Your task to perform on an android device: Open internet settings Image 0: 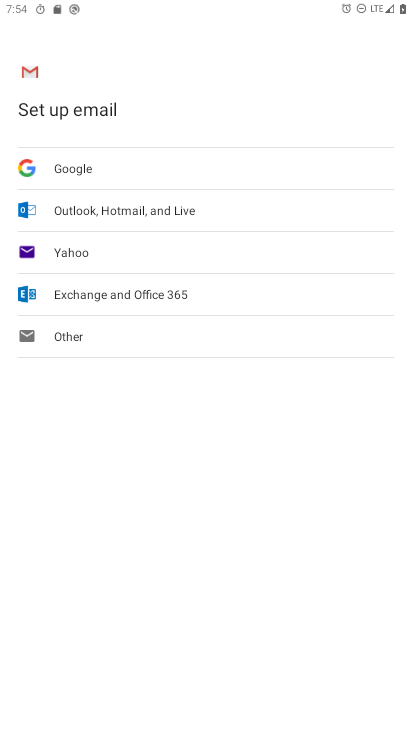
Step 0: press home button
Your task to perform on an android device: Open internet settings Image 1: 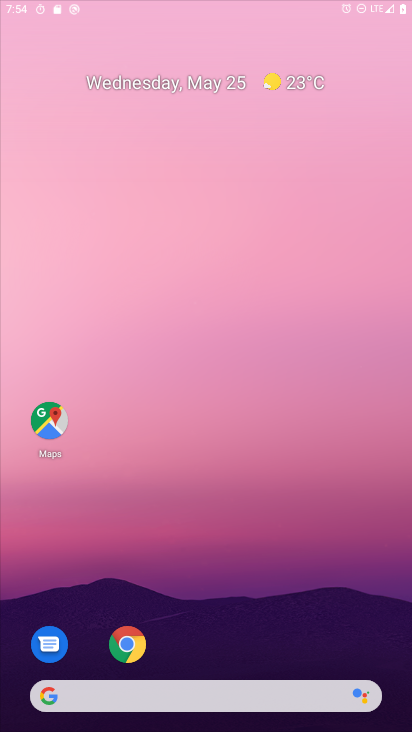
Step 1: drag from (380, 645) to (243, 42)
Your task to perform on an android device: Open internet settings Image 2: 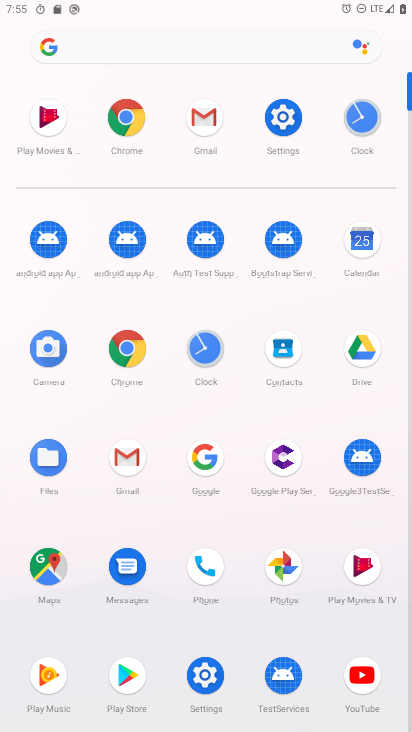
Step 2: click (297, 105)
Your task to perform on an android device: Open internet settings Image 3: 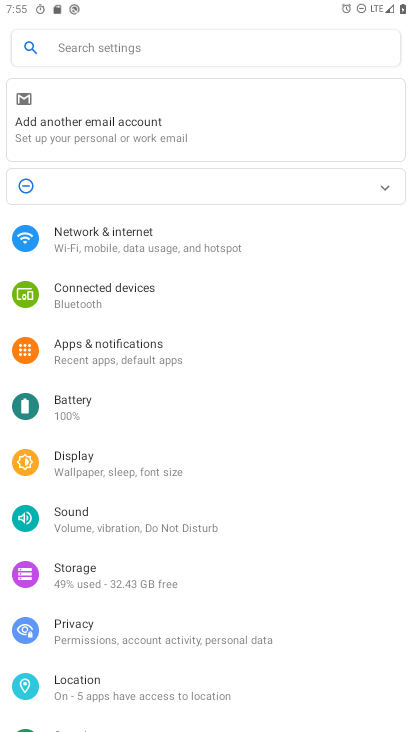
Step 3: click (129, 264)
Your task to perform on an android device: Open internet settings Image 4: 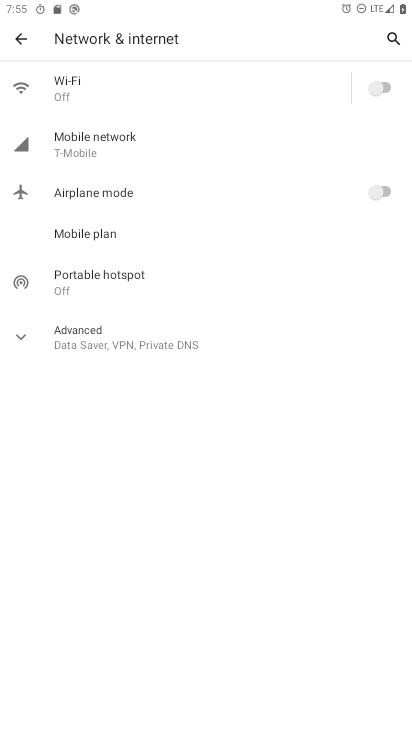
Step 4: task complete